Your task to perform on an android device: Is it going to rain today? Image 0: 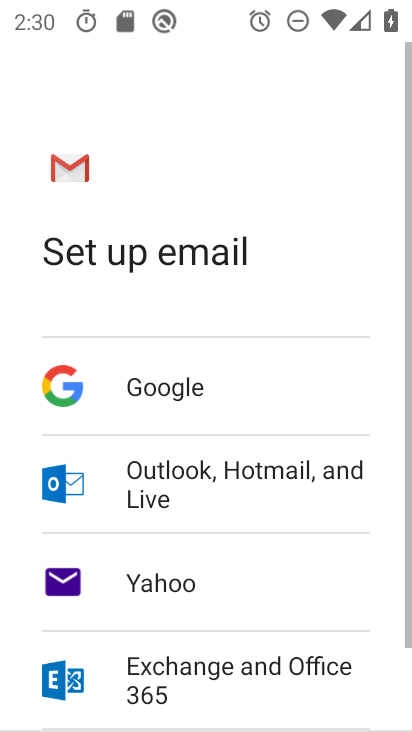
Step 0: press home button
Your task to perform on an android device: Is it going to rain today? Image 1: 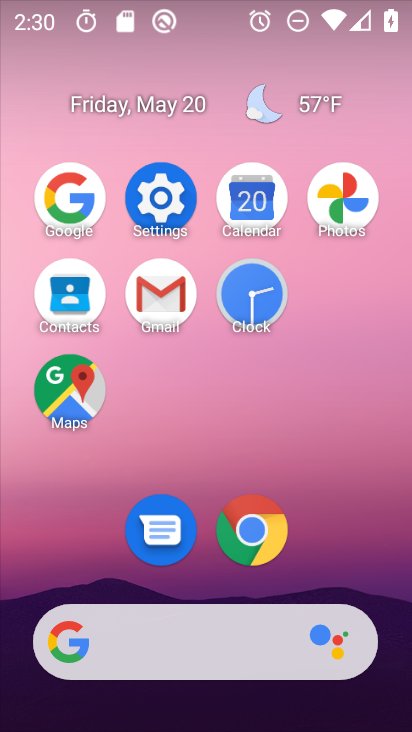
Step 1: click (80, 209)
Your task to perform on an android device: Is it going to rain today? Image 2: 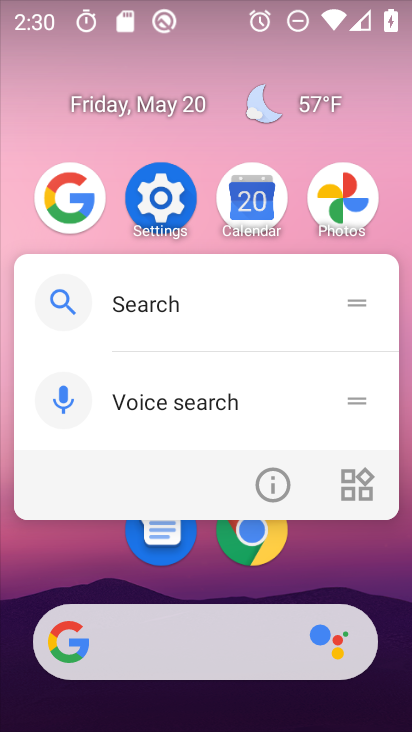
Step 2: click (80, 209)
Your task to perform on an android device: Is it going to rain today? Image 3: 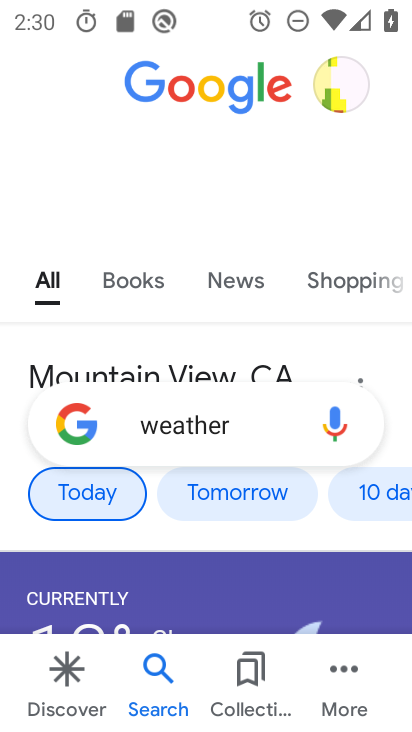
Step 3: click (259, 435)
Your task to perform on an android device: Is it going to rain today? Image 4: 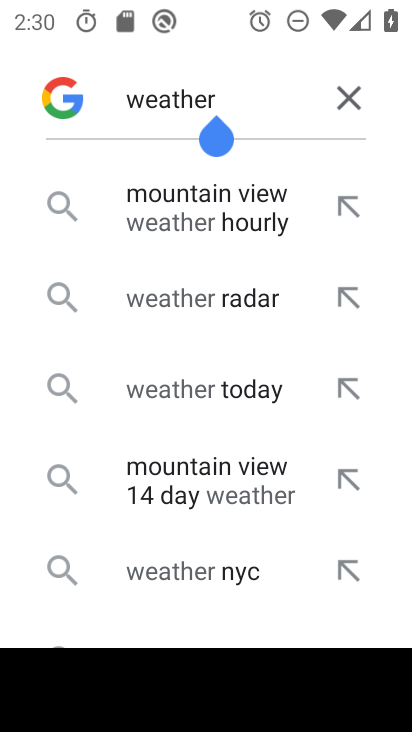
Step 4: click (338, 98)
Your task to perform on an android device: Is it going to rain today? Image 5: 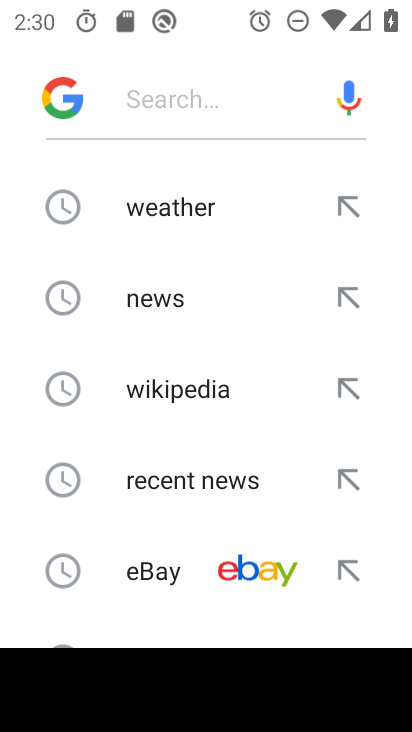
Step 5: click (133, 228)
Your task to perform on an android device: Is it going to rain today? Image 6: 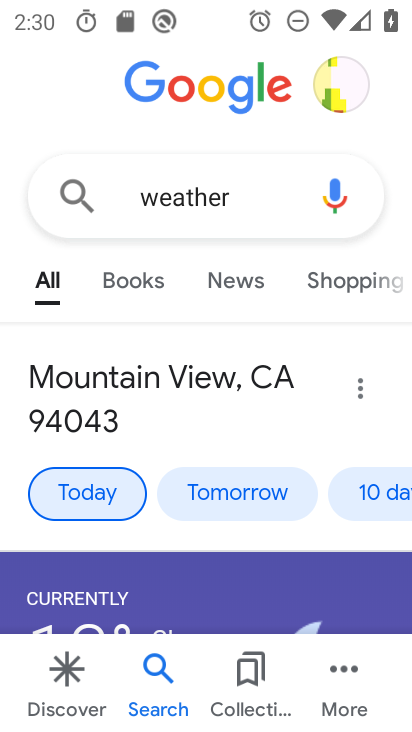
Step 6: task complete